Your task to perform on an android device: Open the map Image 0: 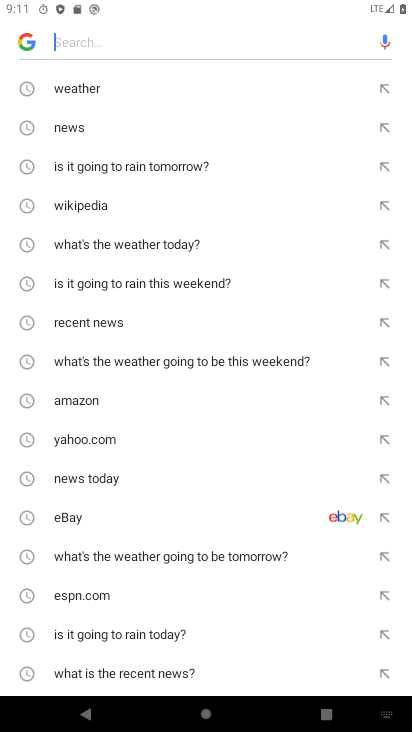
Step 0: press home button
Your task to perform on an android device: Open the map Image 1: 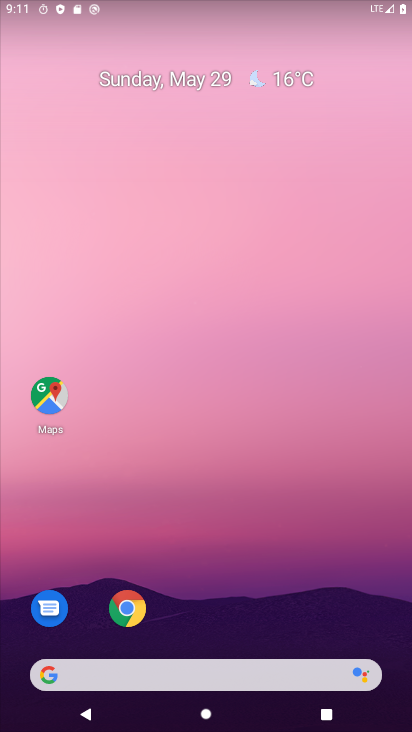
Step 1: click (45, 404)
Your task to perform on an android device: Open the map Image 2: 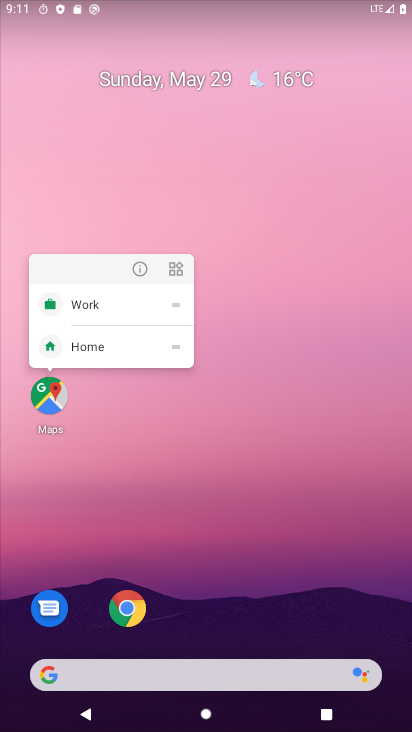
Step 2: click (59, 416)
Your task to perform on an android device: Open the map Image 3: 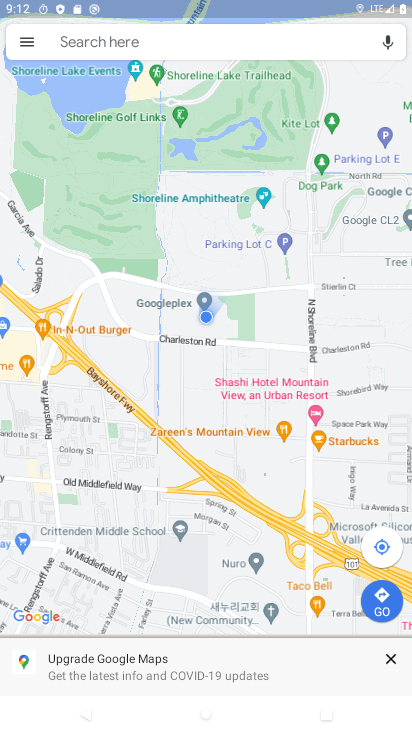
Step 3: task complete